Your task to perform on an android device: Open Google Maps and go to "Timeline" Image 0: 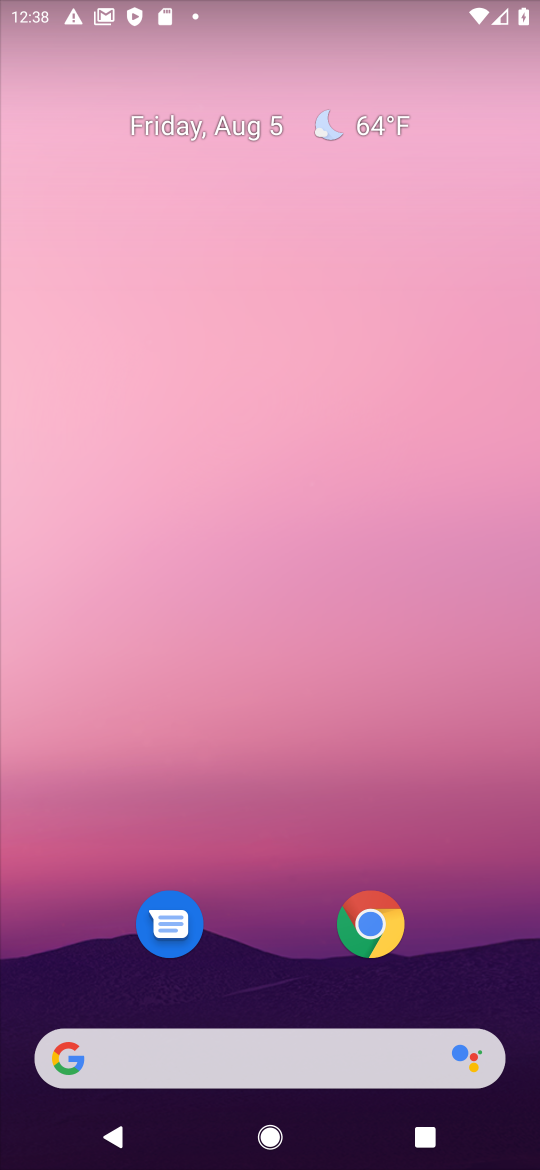
Step 0: drag from (283, 935) to (401, 235)
Your task to perform on an android device: Open Google Maps and go to "Timeline" Image 1: 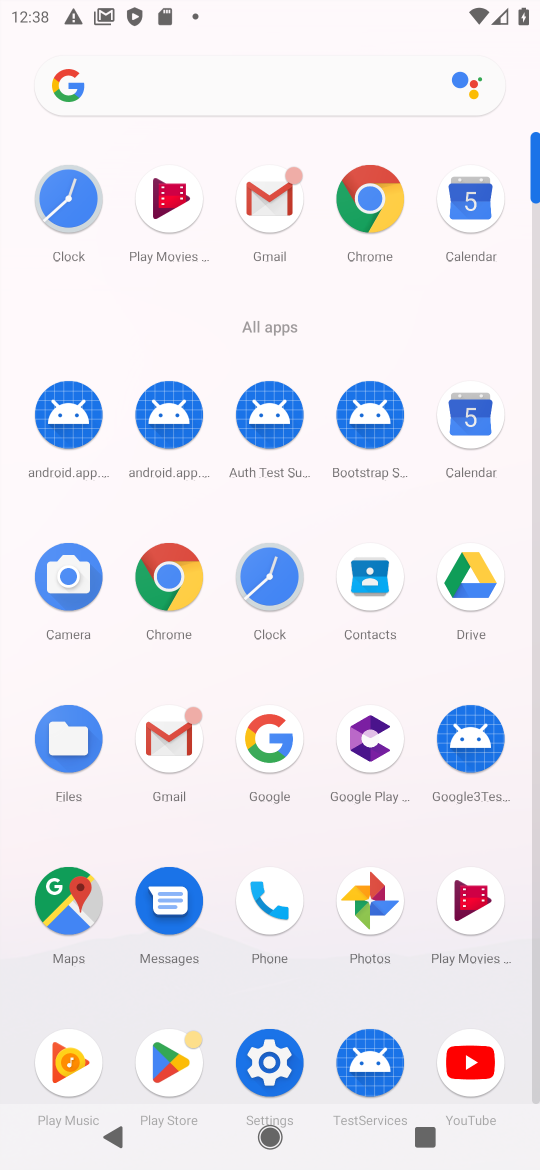
Step 1: click (71, 920)
Your task to perform on an android device: Open Google Maps and go to "Timeline" Image 2: 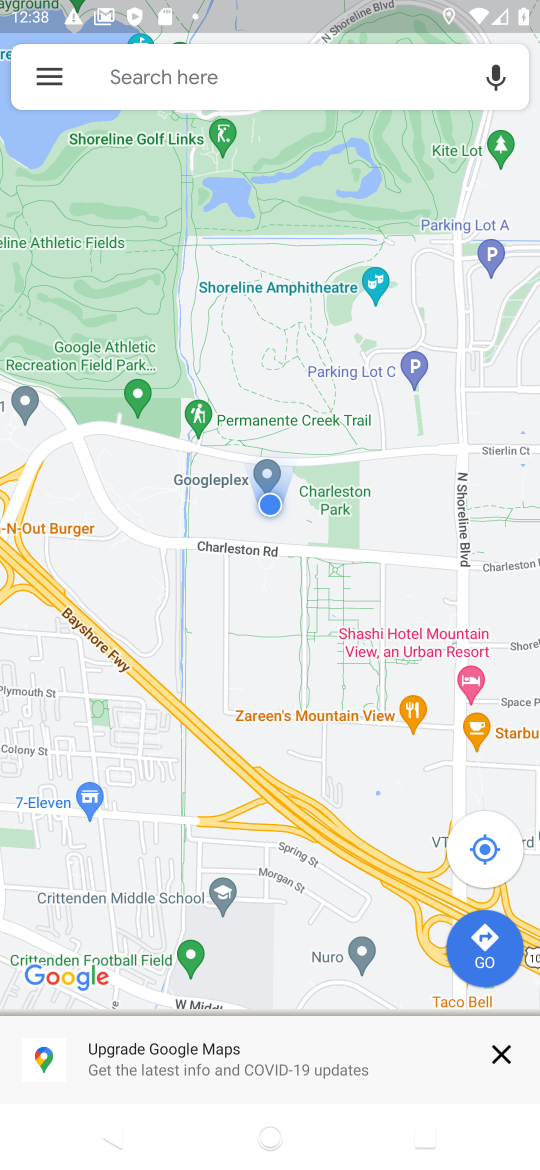
Step 2: click (43, 80)
Your task to perform on an android device: Open Google Maps and go to "Timeline" Image 3: 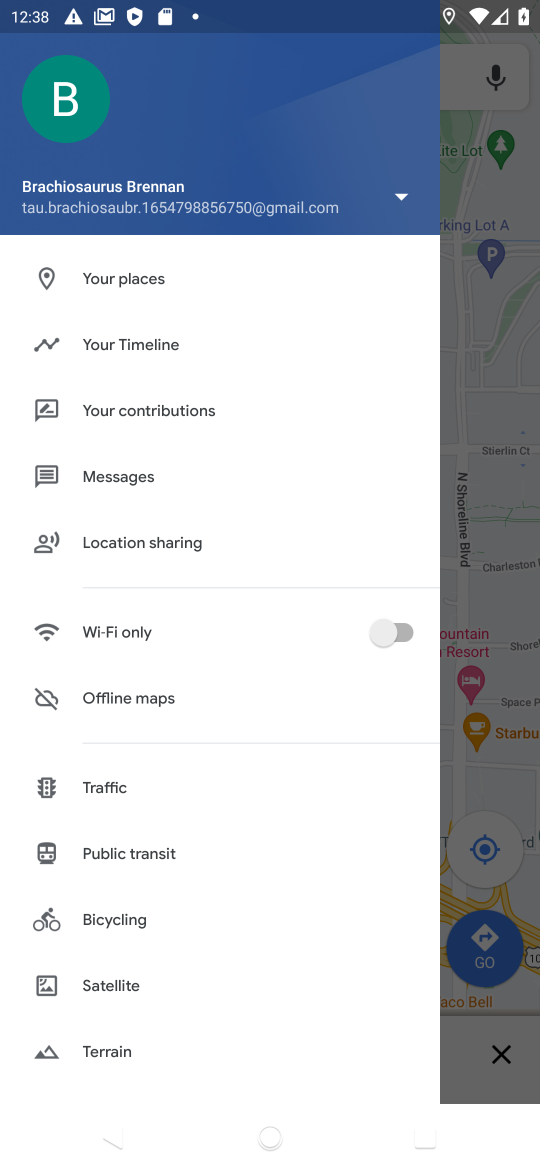
Step 3: click (124, 347)
Your task to perform on an android device: Open Google Maps and go to "Timeline" Image 4: 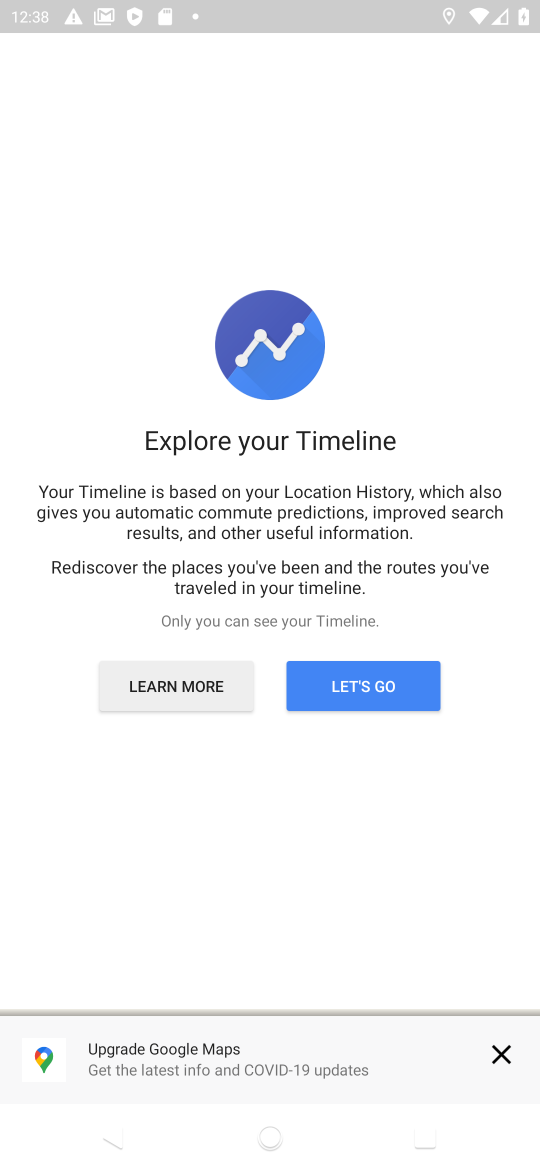
Step 4: click (385, 698)
Your task to perform on an android device: Open Google Maps and go to "Timeline" Image 5: 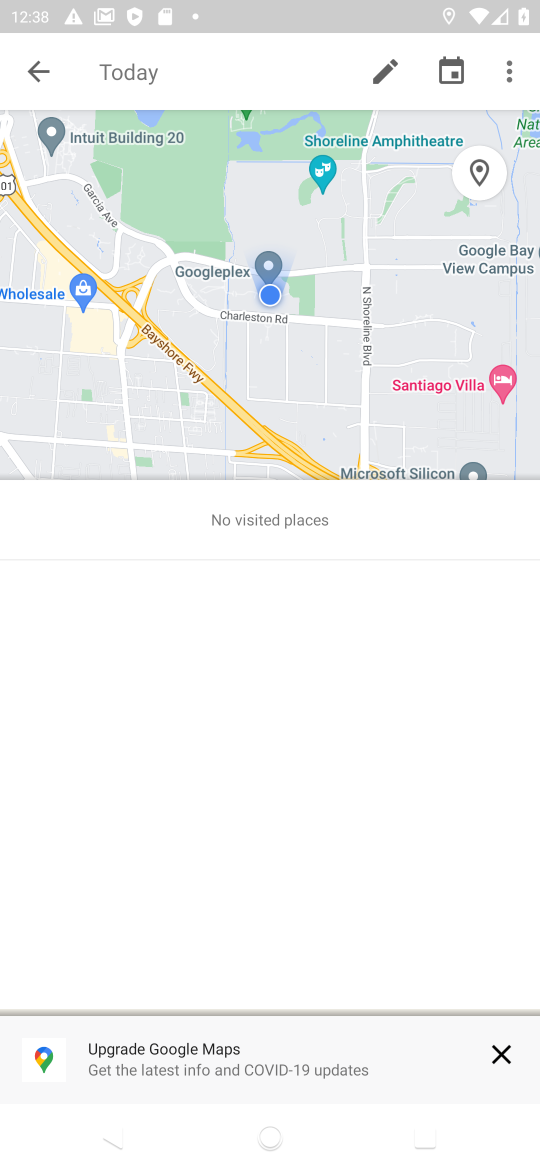
Step 5: task complete